Your task to perform on an android device: toggle javascript in the chrome app Image 0: 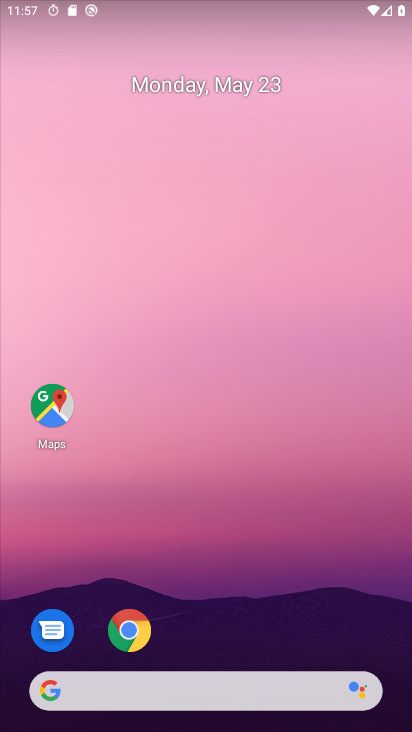
Step 0: click (134, 628)
Your task to perform on an android device: toggle javascript in the chrome app Image 1: 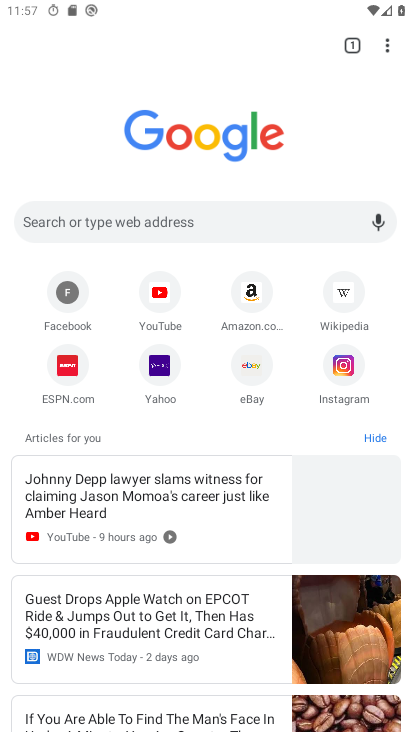
Step 1: click (389, 48)
Your task to perform on an android device: toggle javascript in the chrome app Image 2: 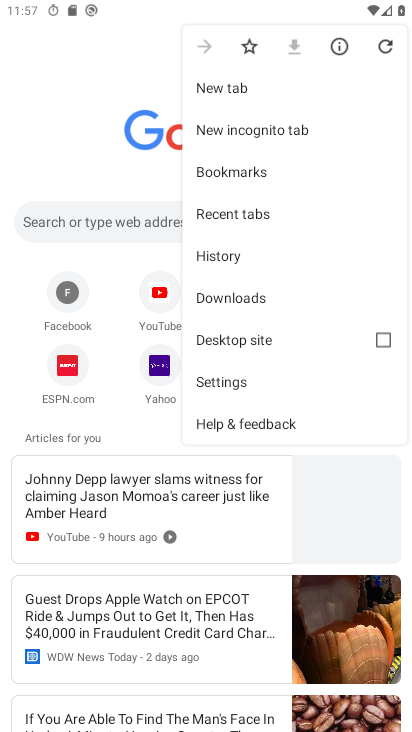
Step 2: click (235, 386)
Your task to perform on an android device: toggle javascript in the chrome app Image 3: 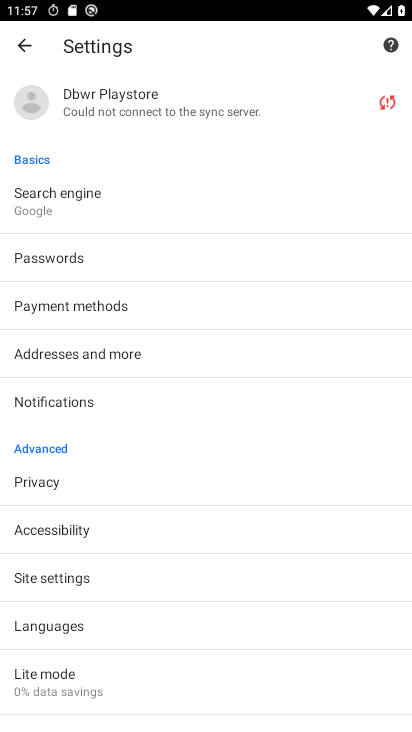
Step 3: click (83, 577)
Your task to perform on an android device: toggle javascript in the chrome app Image 4: 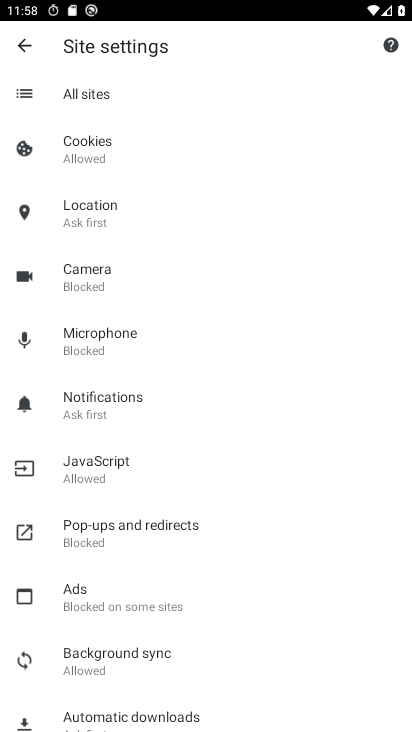
Step 4: click (103, 475)
Your task to perform on an android device: toggle javascript in the chrome app Image 5: 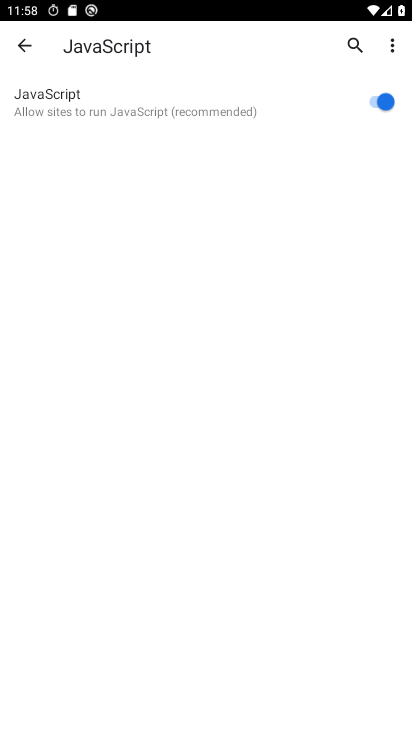
Step 5: click (360, 101)
Your task to perform on an android device: toggle javascript in the chrome app Image 6: 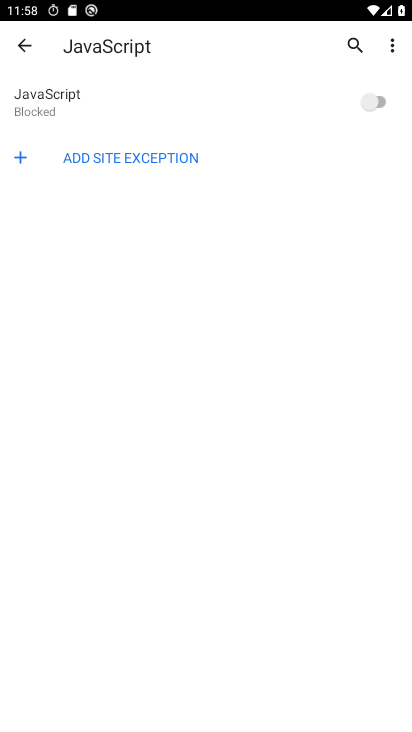
Step 6: task complete